Your task to perform on an android device: open a bookmark in the chrome app Image 0: 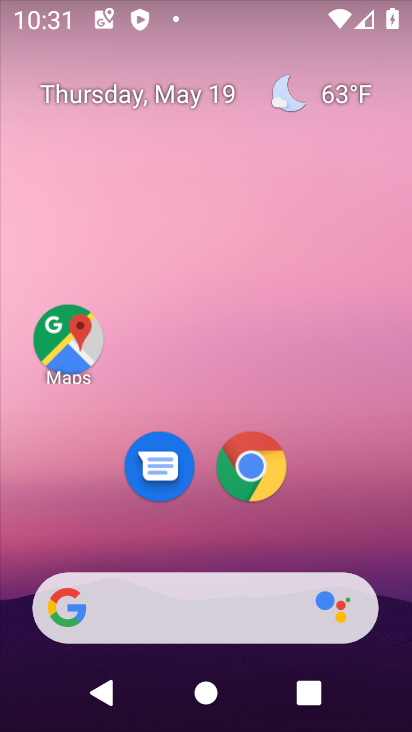
Step 0: drag from (389, 612) to (310, 3)
Your task to perform on an android device: open a bookmark in the chrome app Image 1: 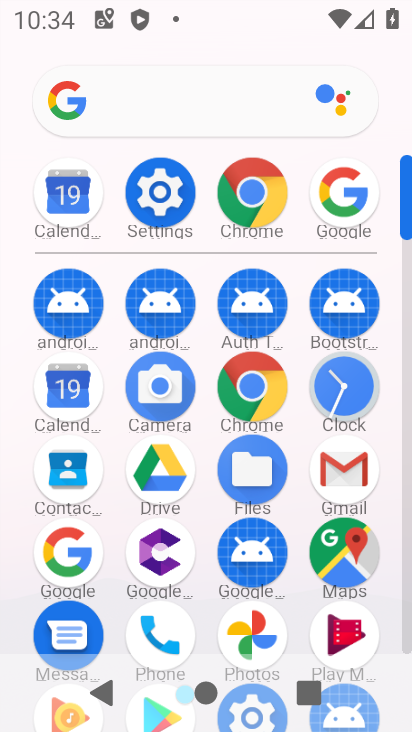
Step 1: click (262, 398)
Your task to perform on an android device: open a bookmark in the chrome app Image 2: 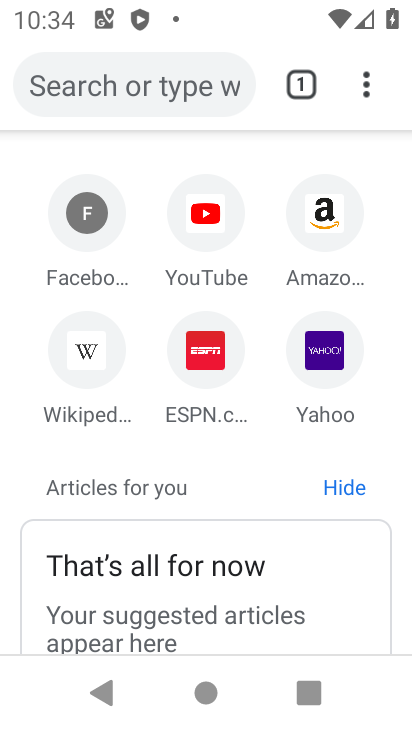
Step 2: click (363, 76)
Your task to perform on an android device: open a bookmark in the chrome app Image 3: 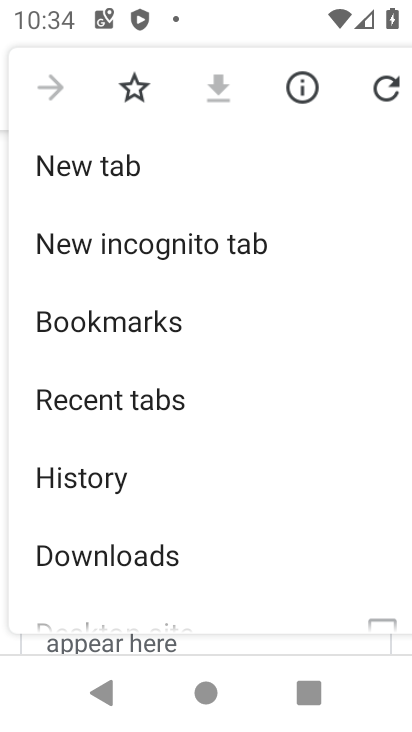
Step 3: click (80, 345)
Your task to perform on an android device: open a bookmark in the chrome app Image 4: 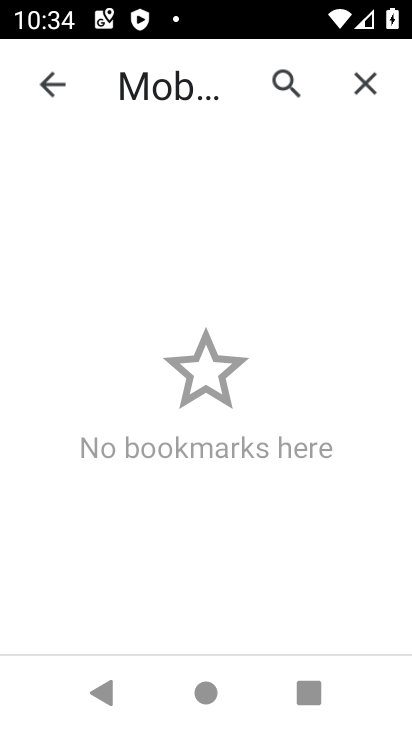
Step 4: task complete